Your task to perform on an android device: Open the map Image 0: 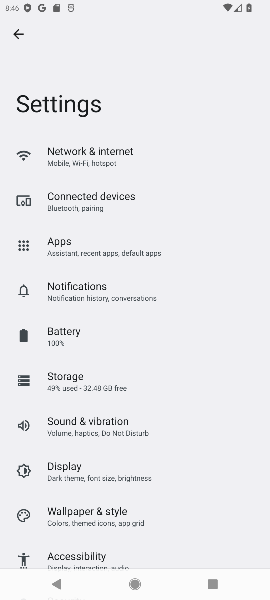
Step 0: press home button
Your task to perform on an android device: Open the map Image 1: 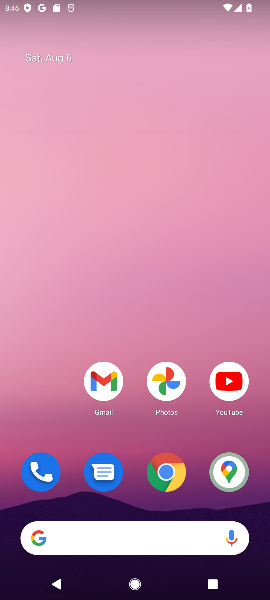
Step 1: click (228, 468)
Your task to perform on an android device: Open the map Image 2: 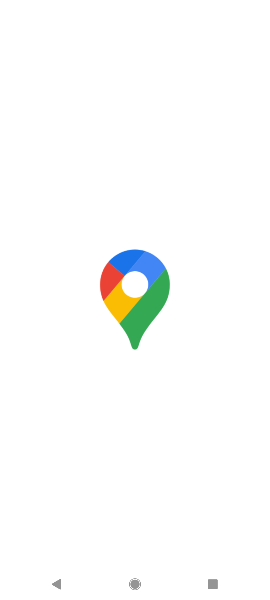
Step 2: click (132, 279)
Your task to perform on an android device: Open the map Image 3: 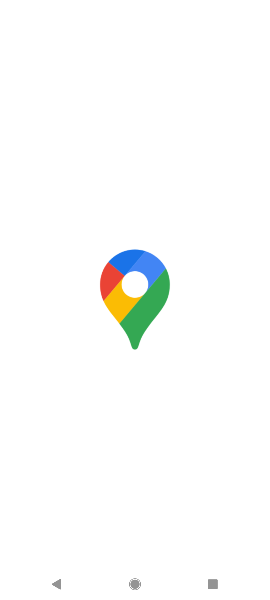
Step 3: task complete